Your task to perform on an android device: Go to Yahoo.com Image 0: 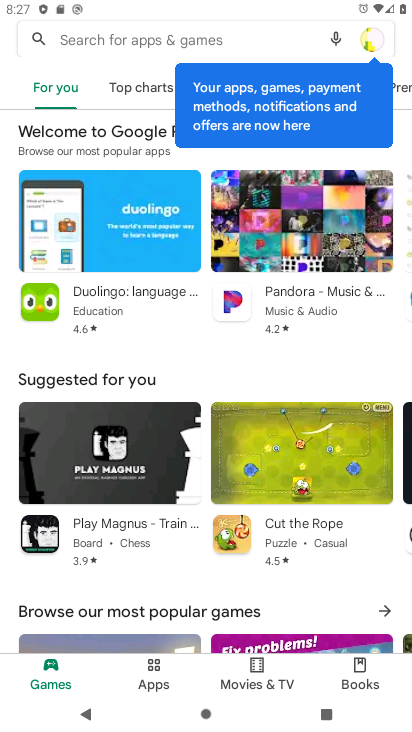
Step 0: press home button
Your task to perform on an android device: Go to Yahoo.com Image 1: 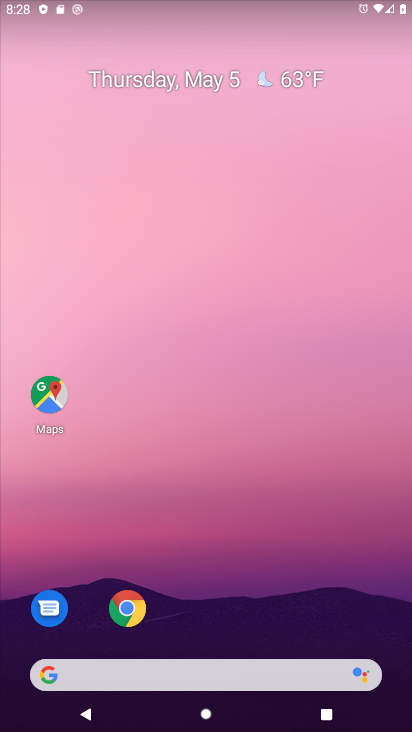
Step 1: click (138, 609)
Your task to perform on an android device: Go to Yahoo.com Image 2: 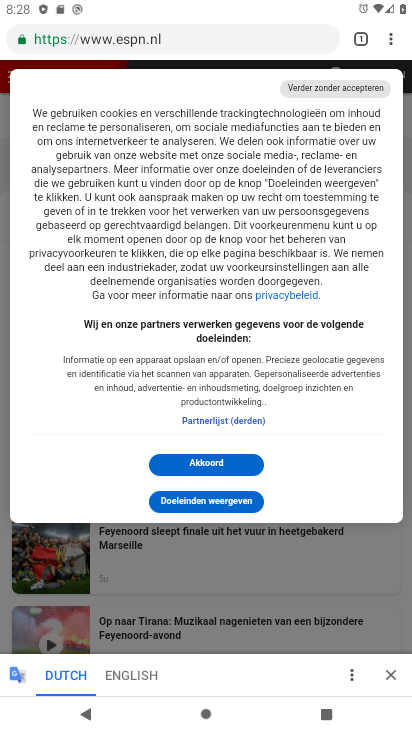
Step 2: click (193, 45)
Your task to perform on an android device: Go to Yahoo.com Image 3: 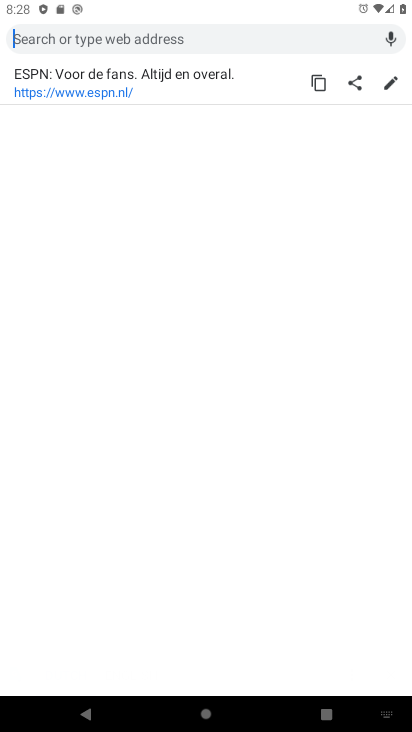
Step 3: type "yahoo.com"
Your task to perform on an android device: Go to Yahoo.com Image 4: 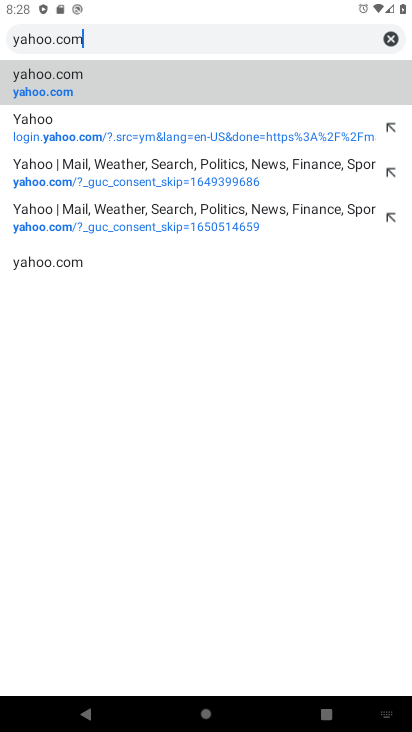
Step 4: click (48, 91)
Your task to perform on an android device: Go to Yahoo.com Image 5: 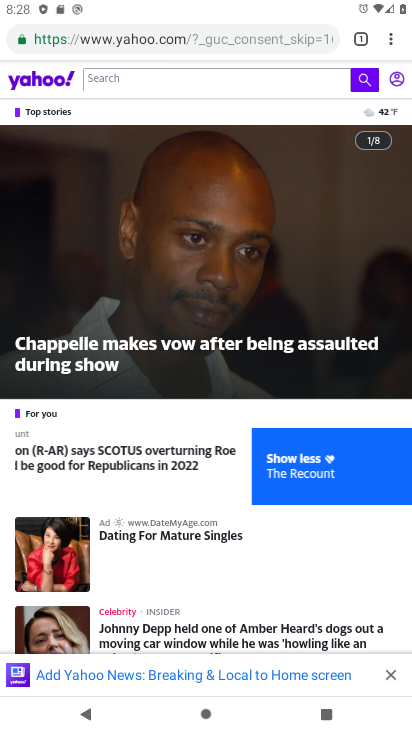
Step 5: task complete